Your task to perform on an android device: remove spam from my inbox in the gmail app Image 0: 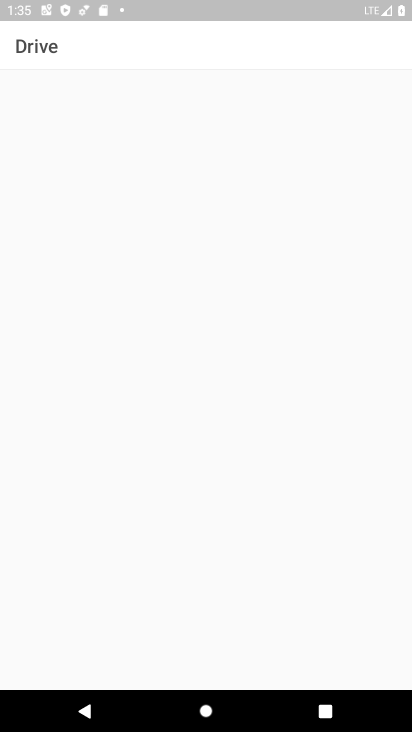
Step 0: press home button
Your task to perform on an android device: remove spam from my inbox in the gmail app Image 1: 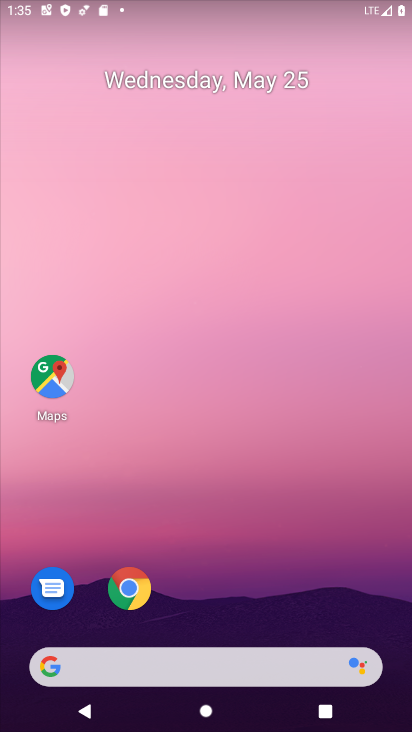
Step 1: drag from (291, 623) to (251, 5)
Your task to perform on an android device: remove spam from my inbox in the gmail app Image 2: 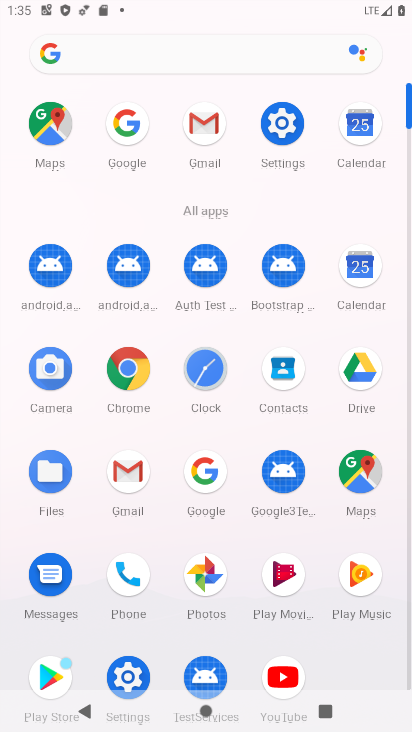
Step 2: click (201, 128)
Your task to perform on an android device: remove spam from my inbox in the gmail app Image 3: 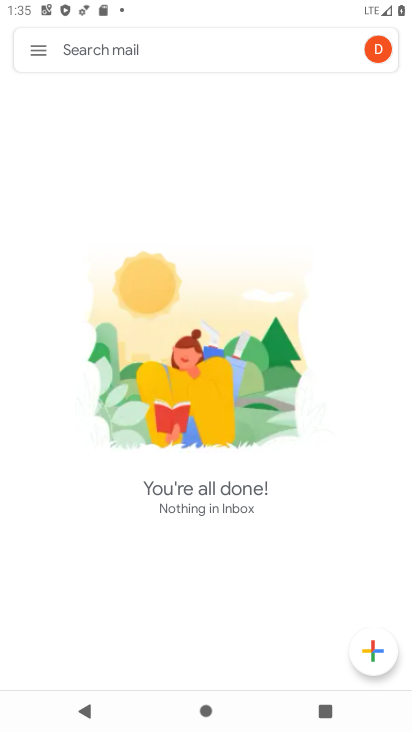
Step 3: click (27, 53)
Your task to perform on an android device: remove spam from my inbox in the gmail app Image 4: 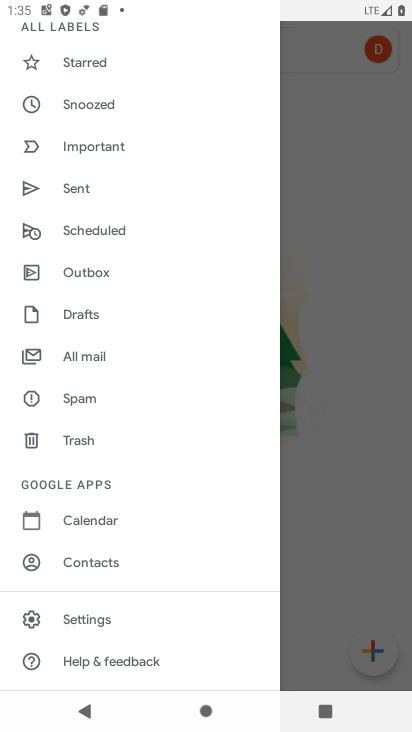
Step 4: click (80, 408)
Your task to perform on an android device: remove spam from my inbox in the gmail app Image 5: 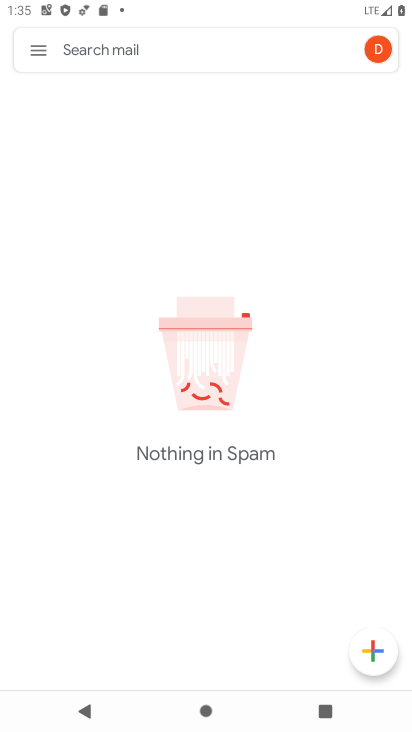
Step 5: task complete